Your task to perform on an android device: change the clock display to show seconds Image 0: 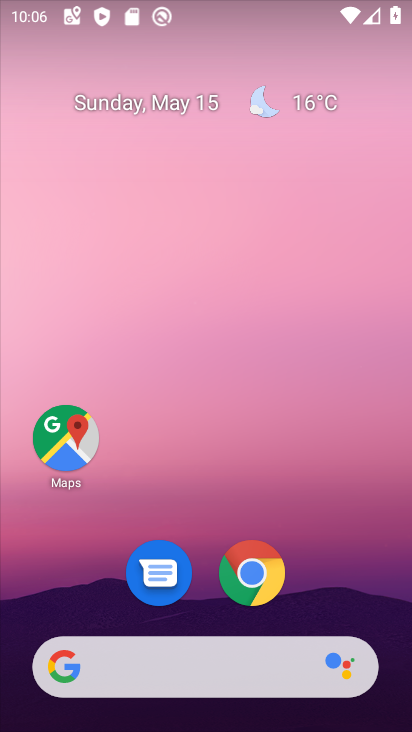
Step 0: press home button
Your task to perform on an android device: change the clock display to show seconds Image 1: 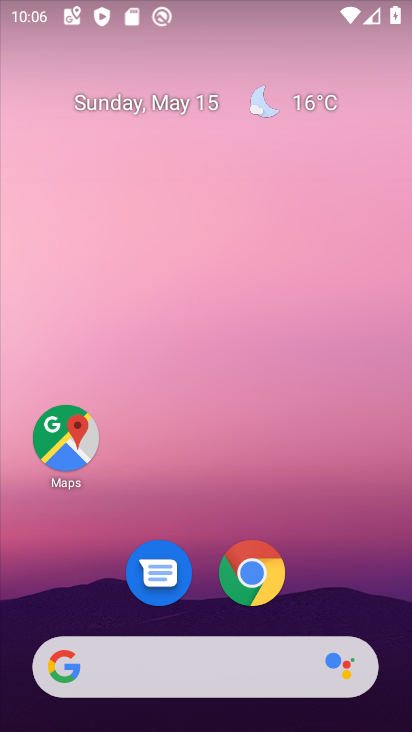
Step 1: press home button
Your task to perform on an android device: change the clock display to show seconds Image 2: 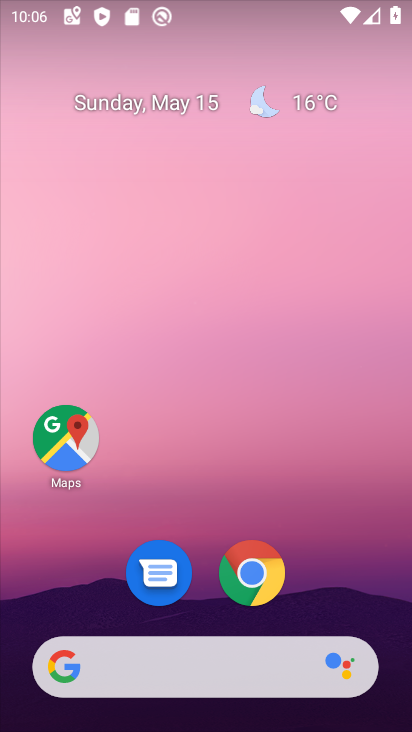
Step 2: drag from (331, 558) to (350, 44)
Your task to perform on an android device: change the clock display to show seconds Image 3: 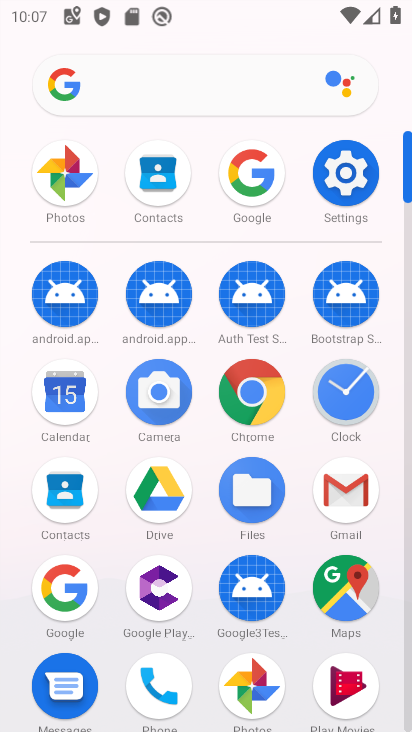
Step 3: click (335, 411)
Your task to perform on an android device: change the clock display to show seconds Image 4: 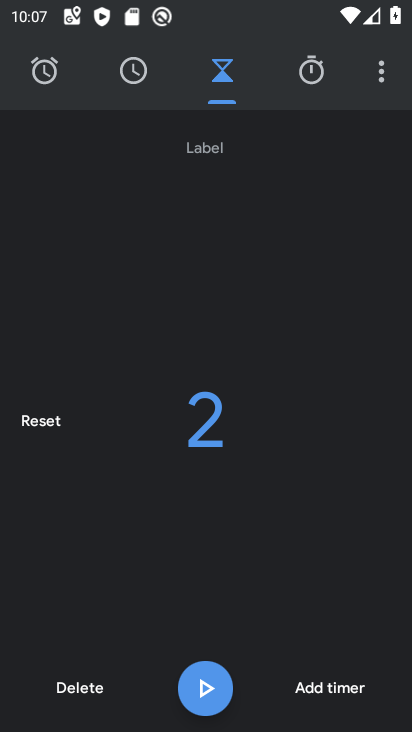
Step 4: click (382, 82)
Your task to perform on an android device: change the clock display to show seconds Image 5: 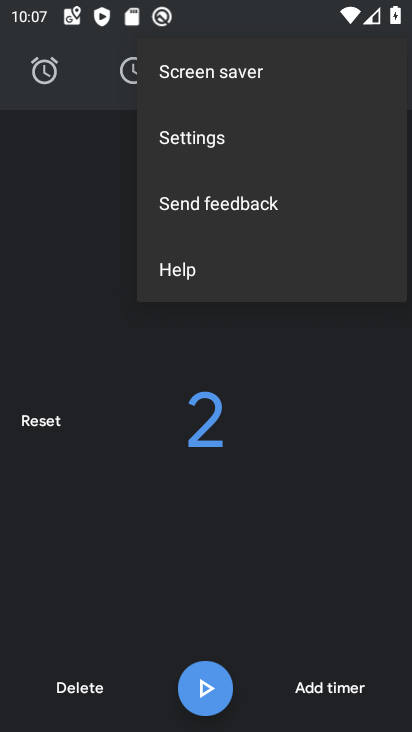
Step 5: click (224, 151)
Your task to perform on an android device: change the clock display to show seconds Image 6: 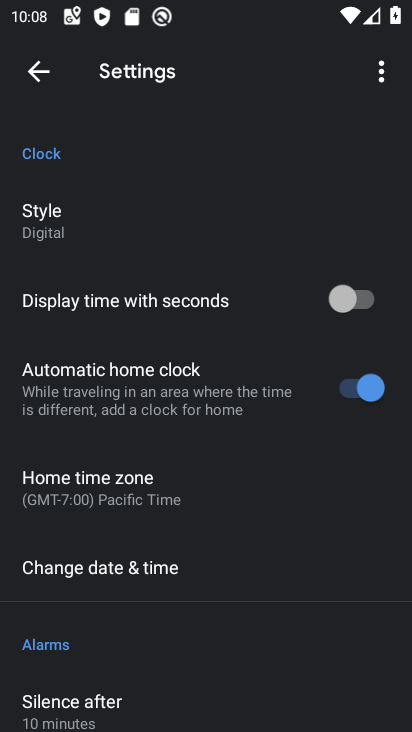
Step 6: click (233, 300)
Your task to perform on an android device: change the clock display to show seconds Image 7: 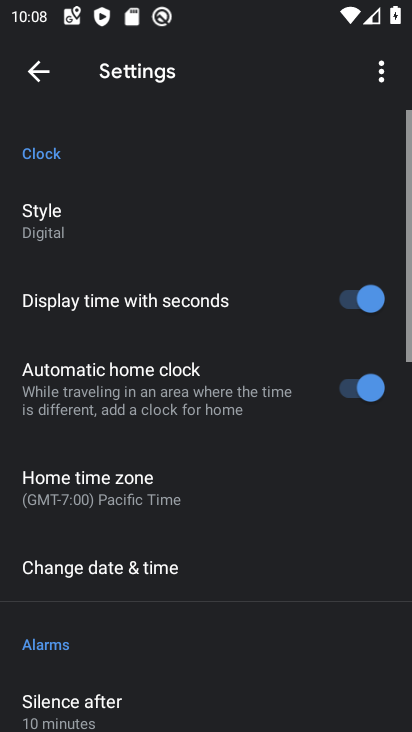
Step 7: task complete